Your task to perform on an android device: Open maps Image 0: 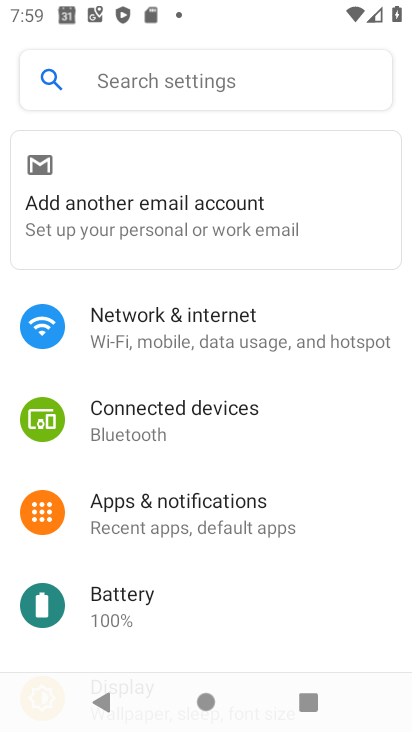
Step 0: press home button
Your task to perform on an android device: Open maps Image 1: 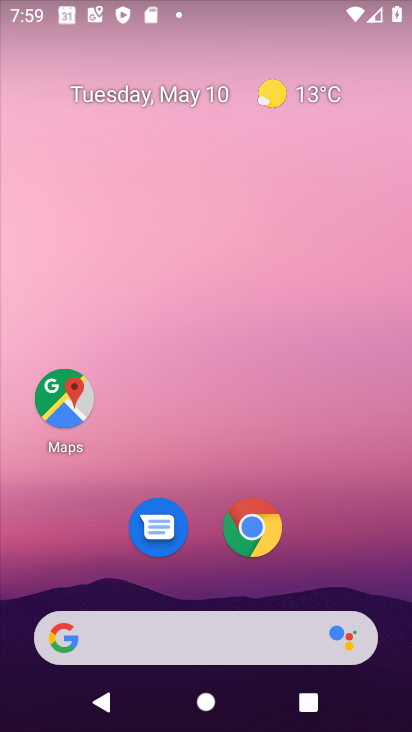
Step 1: click (56, 403)
Your task to perform on an android device: Open maps Image 2: 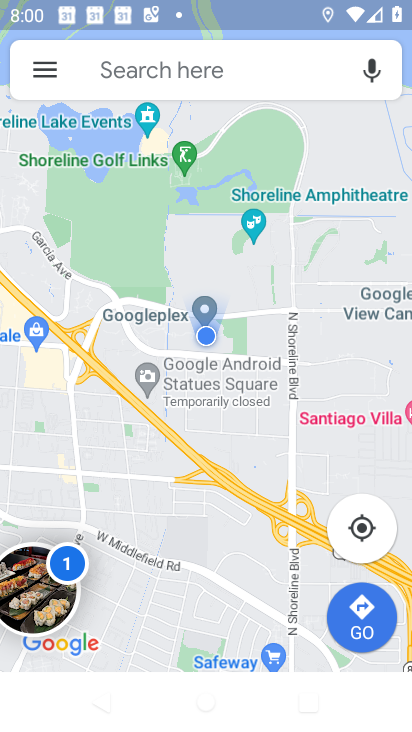
Step 2: task complete